Your task to perform on an android device: Open location settings Image 0: 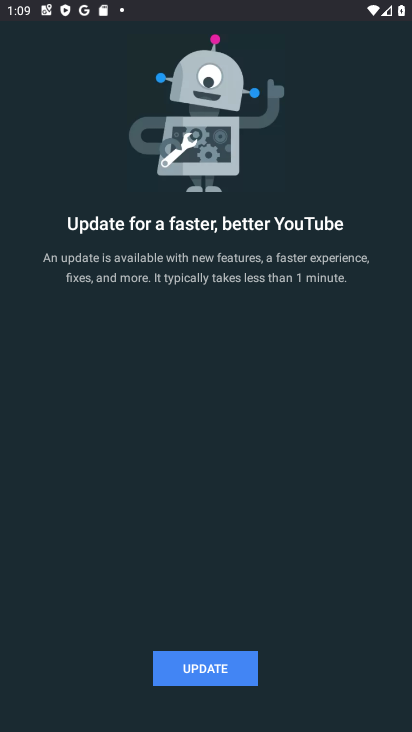
Step 0: press home button
Your task to perform on an android device: Open location settings Image 1: 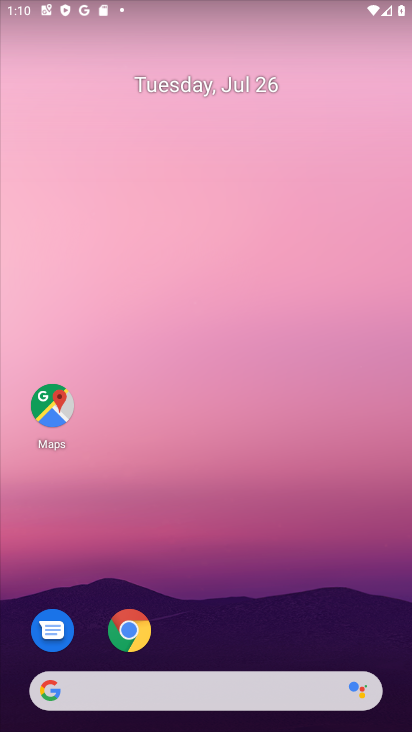
Step 1: drag from (186, 568) to (219, 104)
Your task to perform on an android device: Open location settings Image 2: 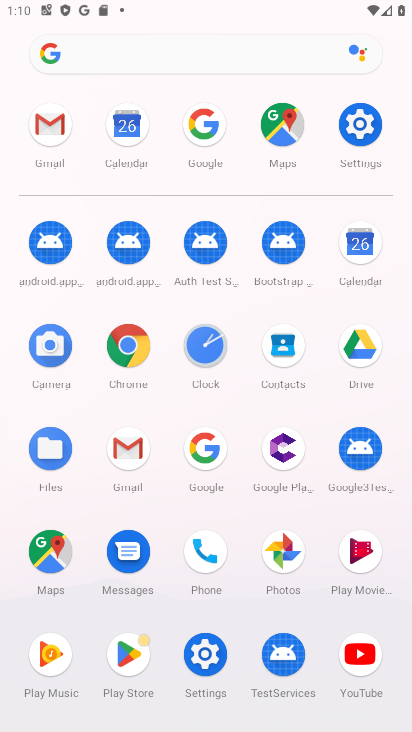
Step 2: click (361, 120)
Your task to perform on an android device: Open location settings Image 3: 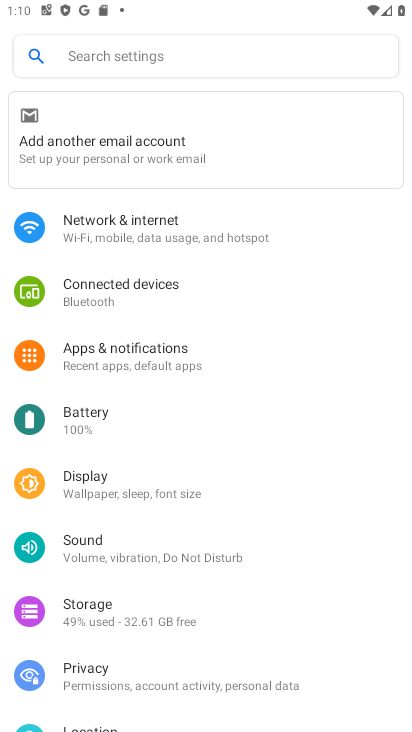
Step 3: drag from (106, 679) to (135, 314)
Your task to perform on an android device: Open location settings Image 4: 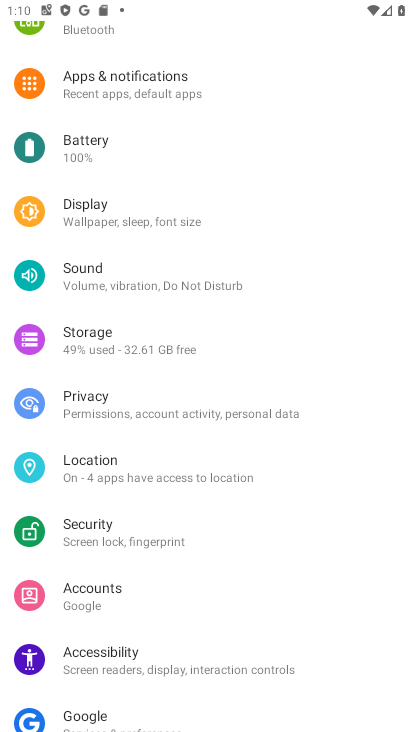
Step 4: click (117, 458)
Your task to perform on an android device: Open location settings Image 5: 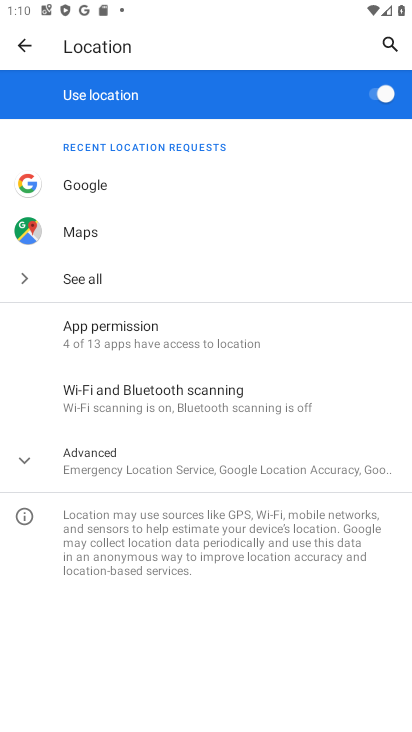
Step 5: task complete